Your task to perform on an android device: clear history in the chrome app Image 0: 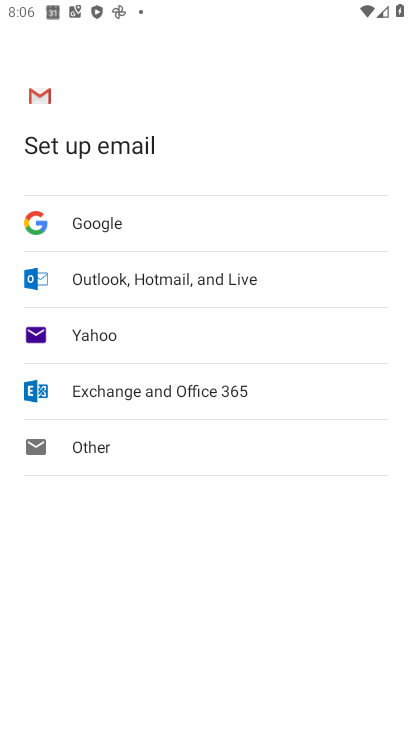
Step 0: press home button
Your task to perform on an android device: clear history in the chrome app Image 1: 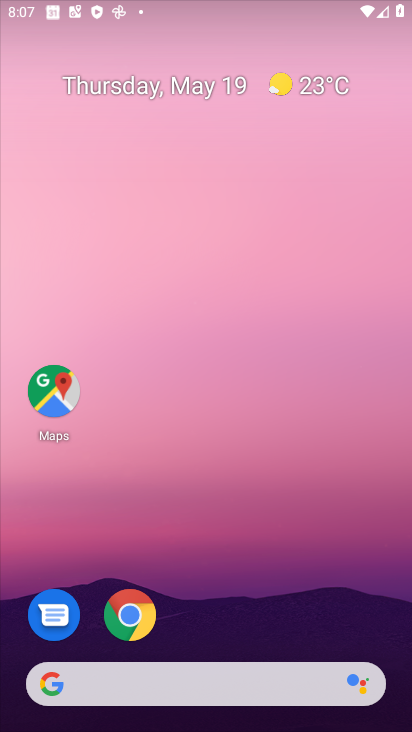
Step 1: drag from (350, 621) to (263, 67)
Your task to perform on an android device: clear history in the chrome app Image 2: 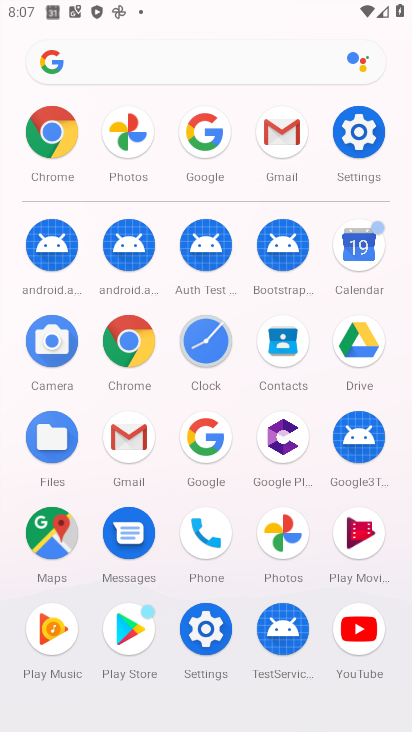
Step 2: click (140, 356)
Your task to perform on an android device: clear history in the chrome app Image 3: 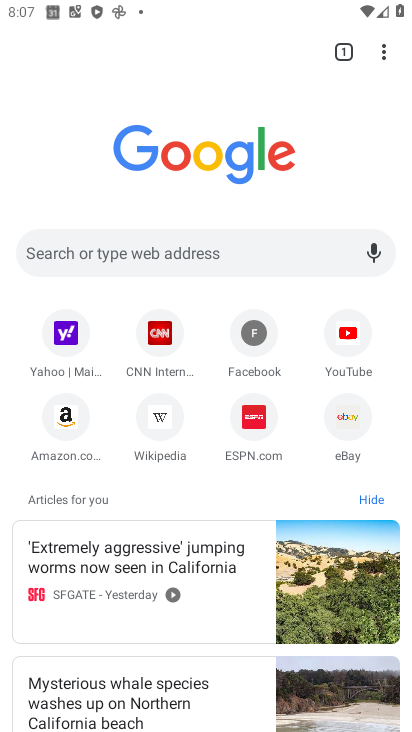
Step 3: click (383, 48)
Your task to perform on an android device: clear history in the chrome app Image 4: 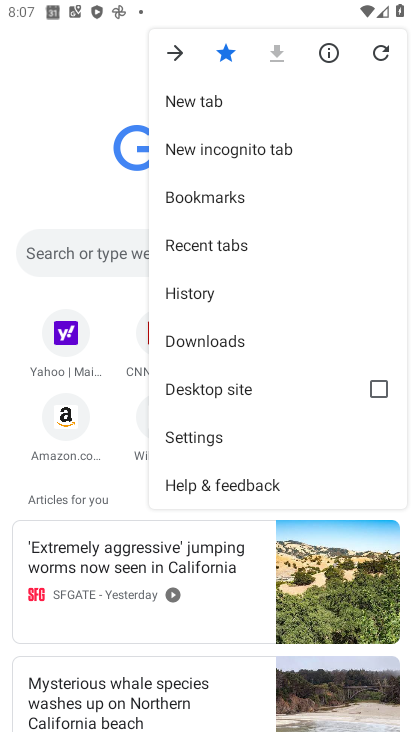
Step 4: click (214, 291)
Your task to perform on an android device: clear history in the chrome app Image 5: 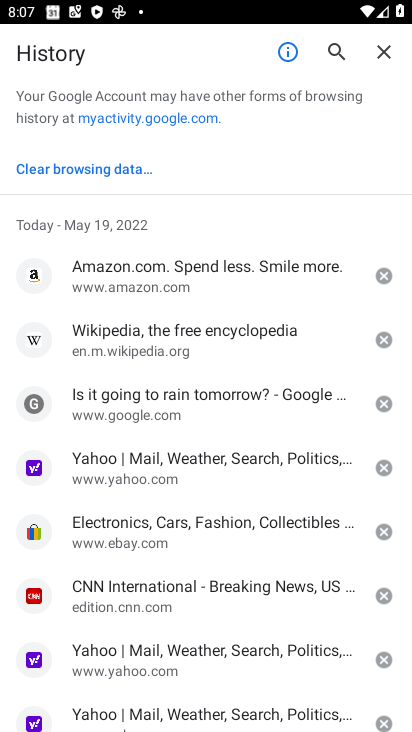
Step 5: click (103, 172)
Your task to perform on an android device: clear history in the chrome app Image 6: 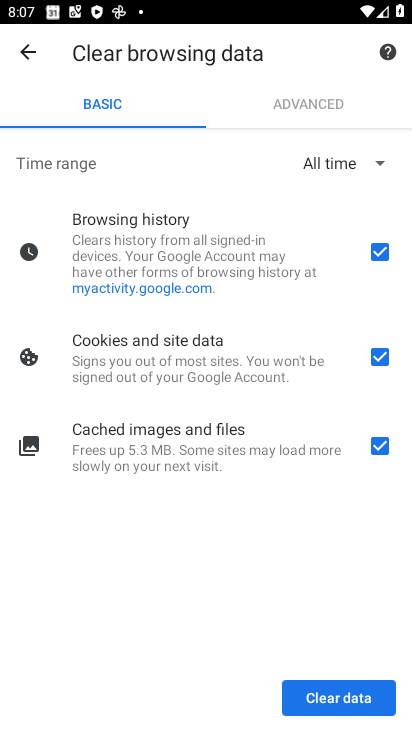
Step 6: click (342, 707)
Your task to perform on an android device: clear history in the chrome app Image 7: 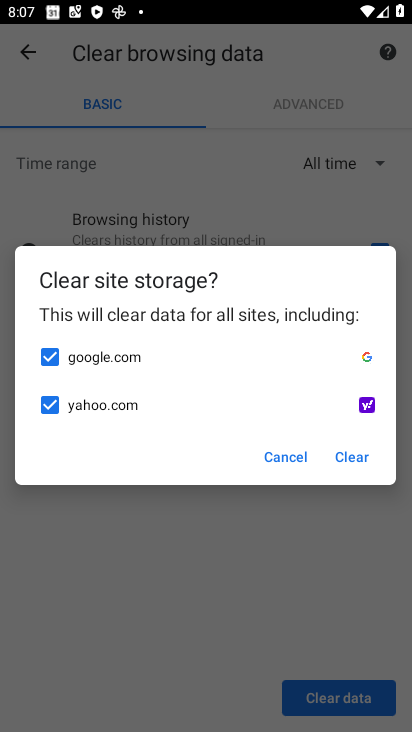
Step 7: click (350, 460)
Your task to perform on an android device: clear history in the chrome app Image 8: 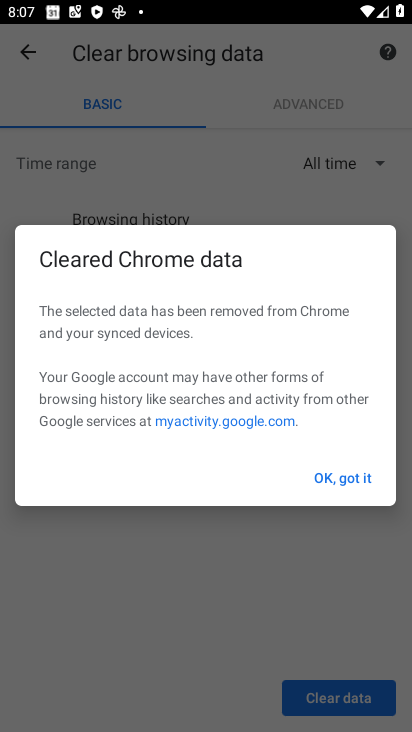
Step 8: click (344, 471)
Your task to perform on an android device: clear history in the chrome app Image 9: 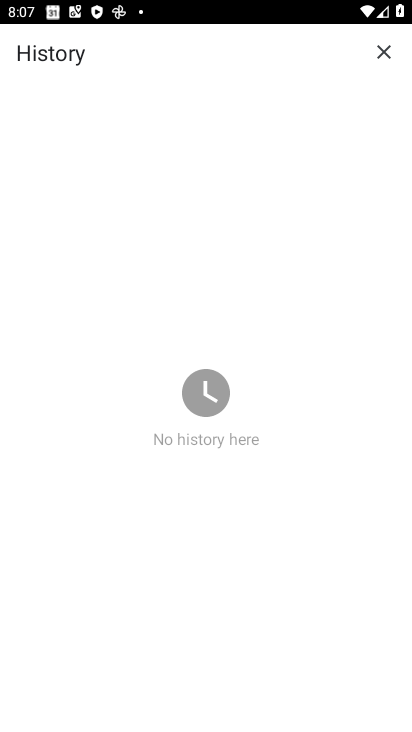
Step 9: task complete